Your task to perform on an android device: visit the assistant section in the google photos Image 0: 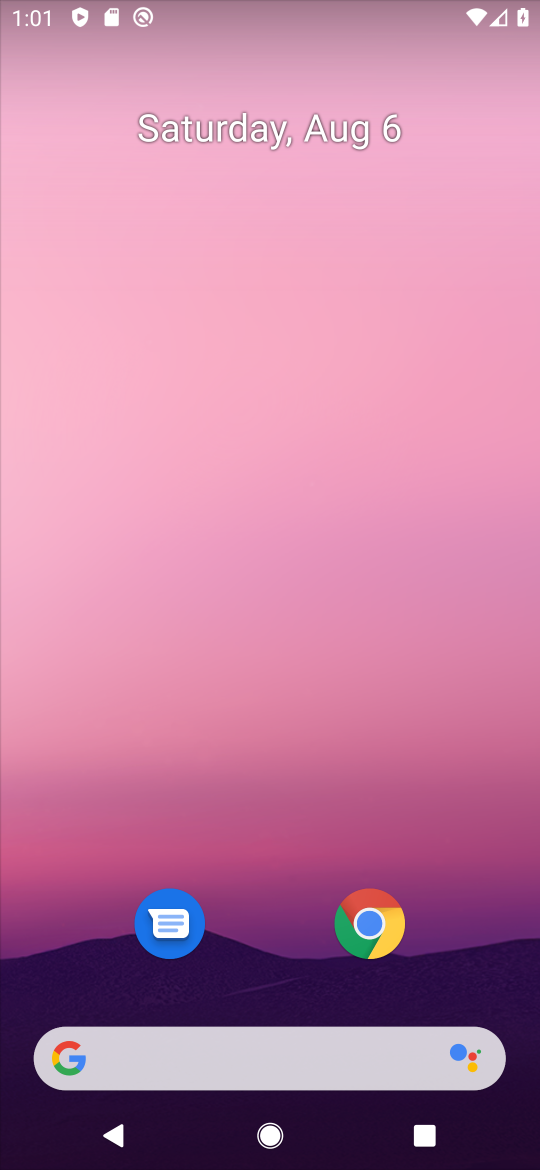
Step 0: drag from (288, 782) to (323, 481)
Your task to perform on an android device: visit the assistant section in the google photos Image 1: 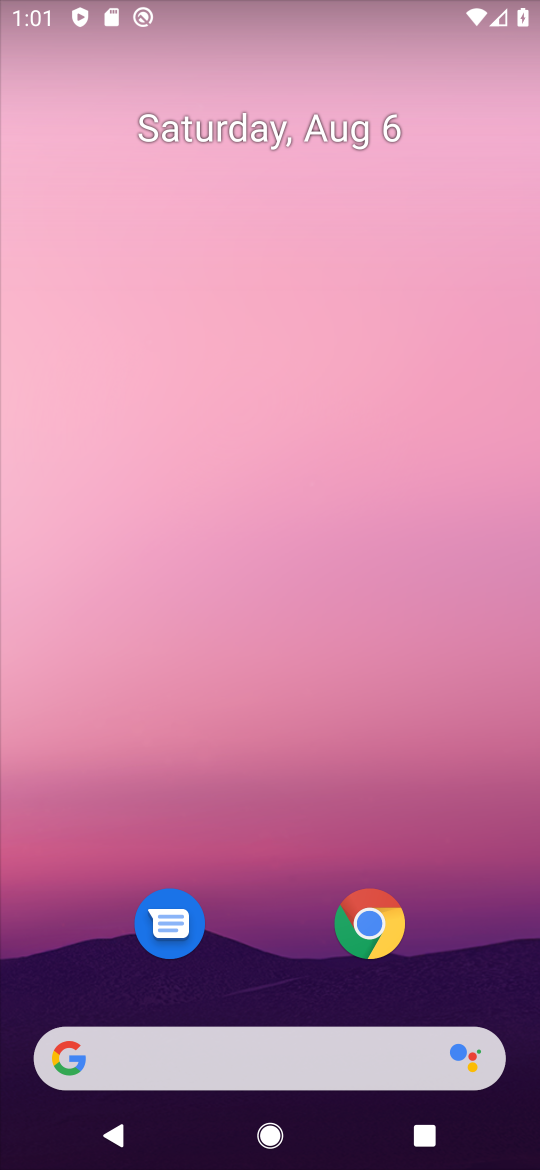
Step 1: drag from (308, 751) to (324, 245)
Your task to perform on an android device: visit the assistant section in the google photos Image 2: 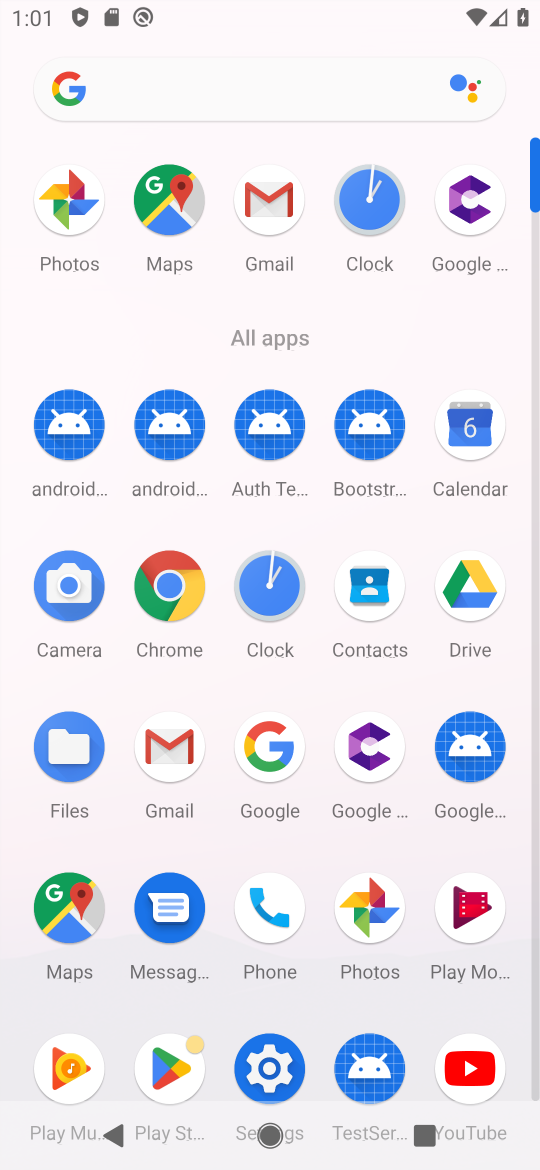
Step 2: click (357, 902)
Your task to perform on an android device: visit the assistant section in the google photos Image 3: 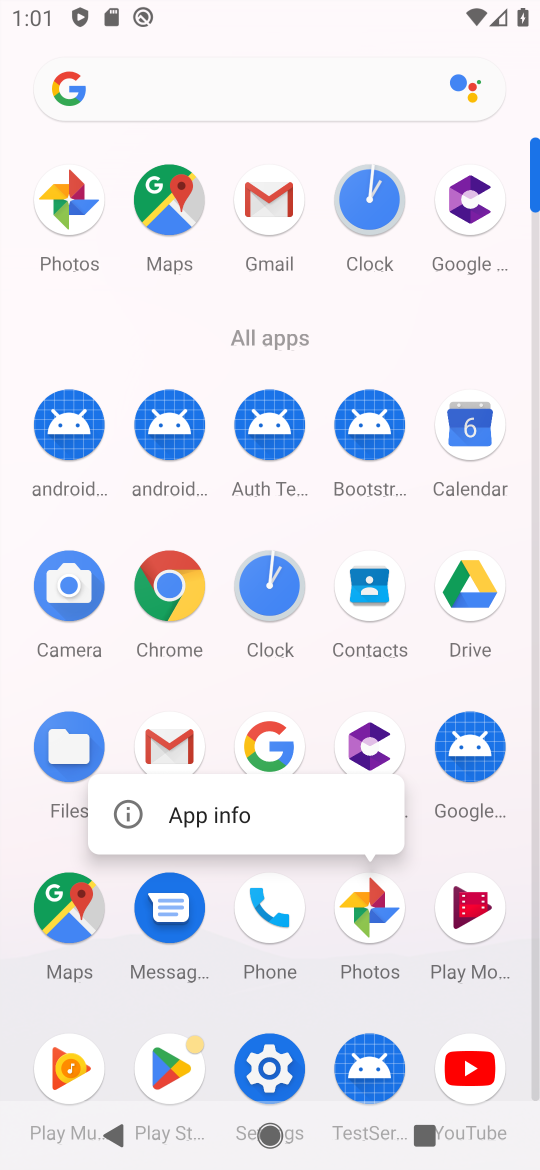
Step 3: click (167, 809)
Your task to perform on an android device: visit the assistant section in the google photos Image 4: 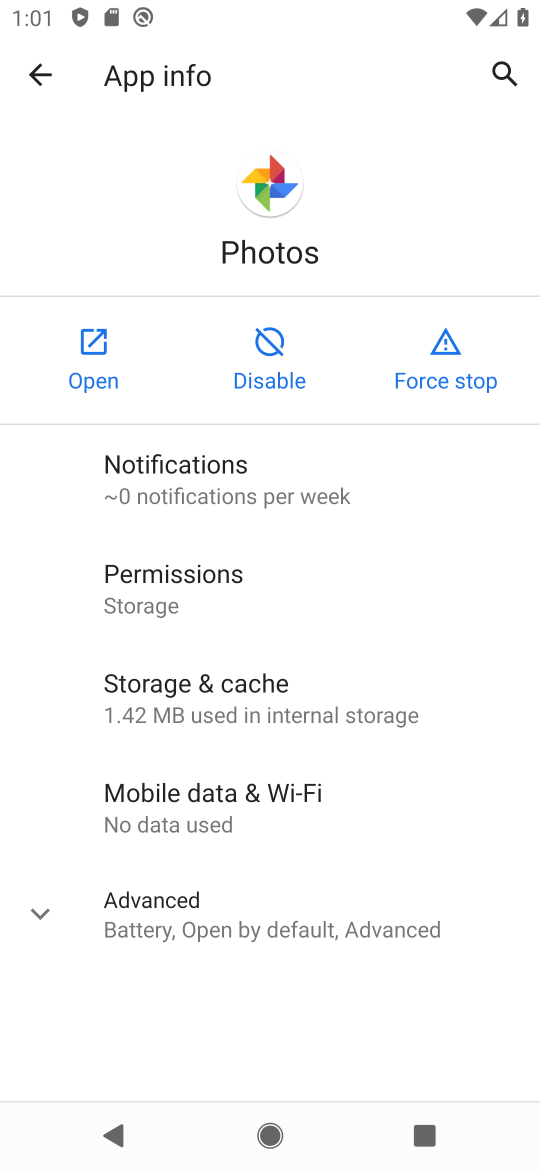
Step 4: click (92, 340)
Your task to perform on an android device: visit the assistant section in the google photos Image 5: 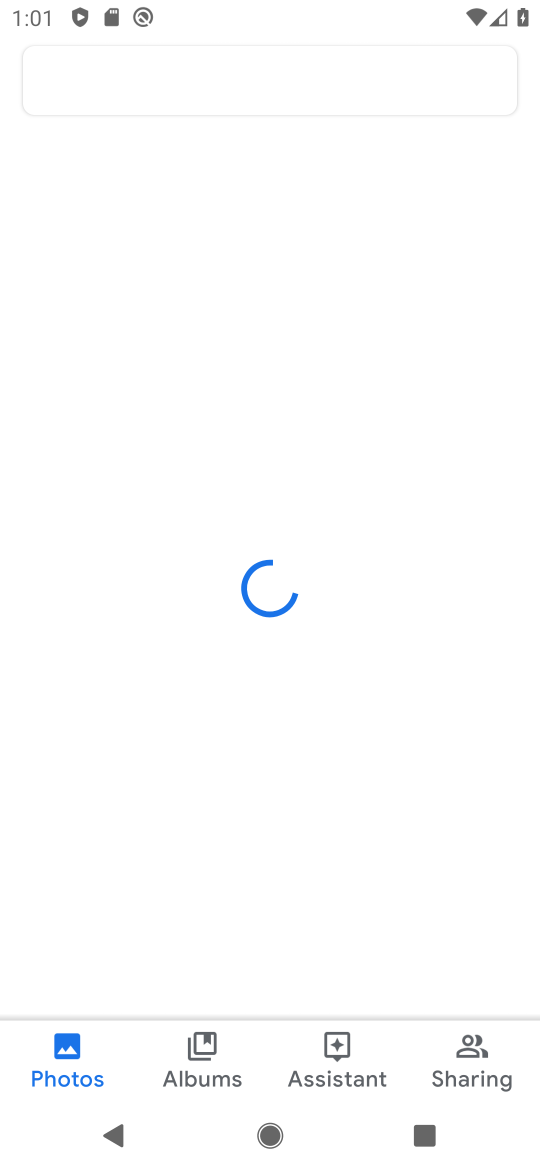
Step 5: drag from (262, 853) to (281, 382)
Your task to perform on an android device: visit the assistant section in the google photos Image 6: 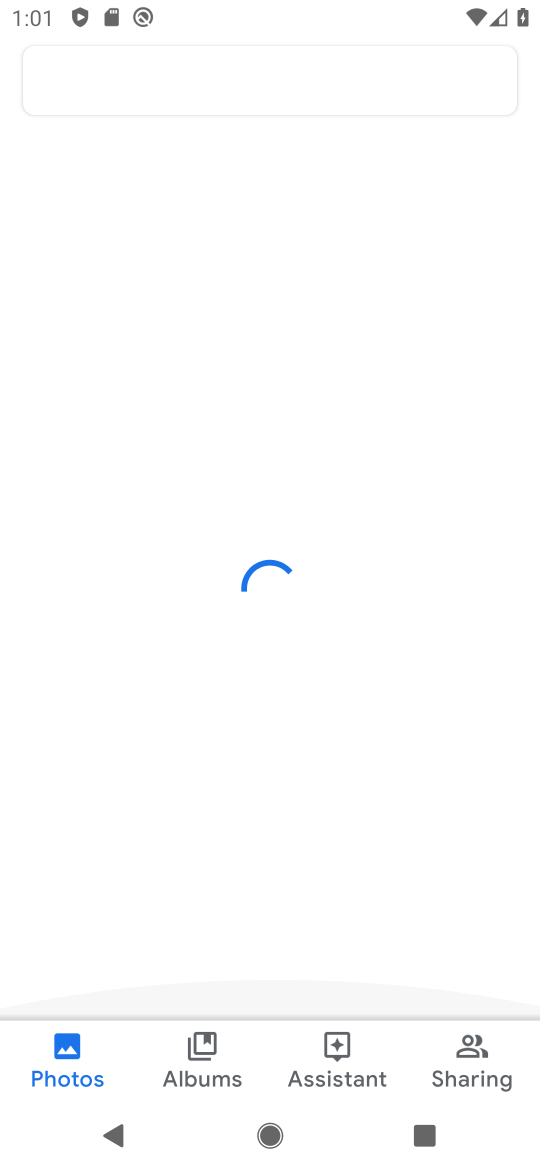
Step 6: click (344, 1044)
Your task to perform on an android device: visit the assistant section in the google photos Image 7: 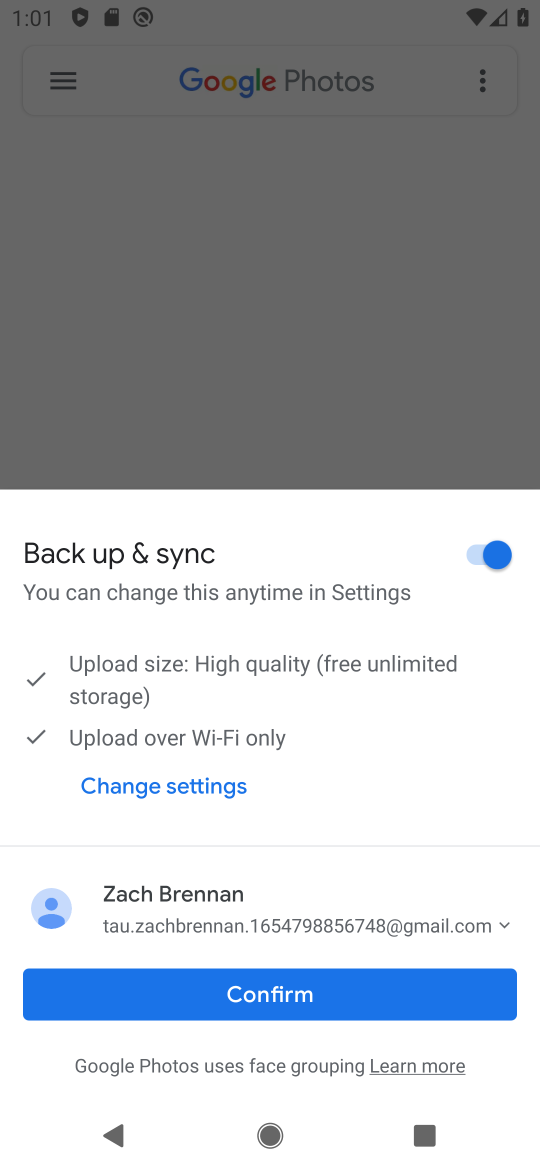
Step 7: click (258, 984)
Your task to perform on an android device: visit the assistant section in the google photos Image 8: 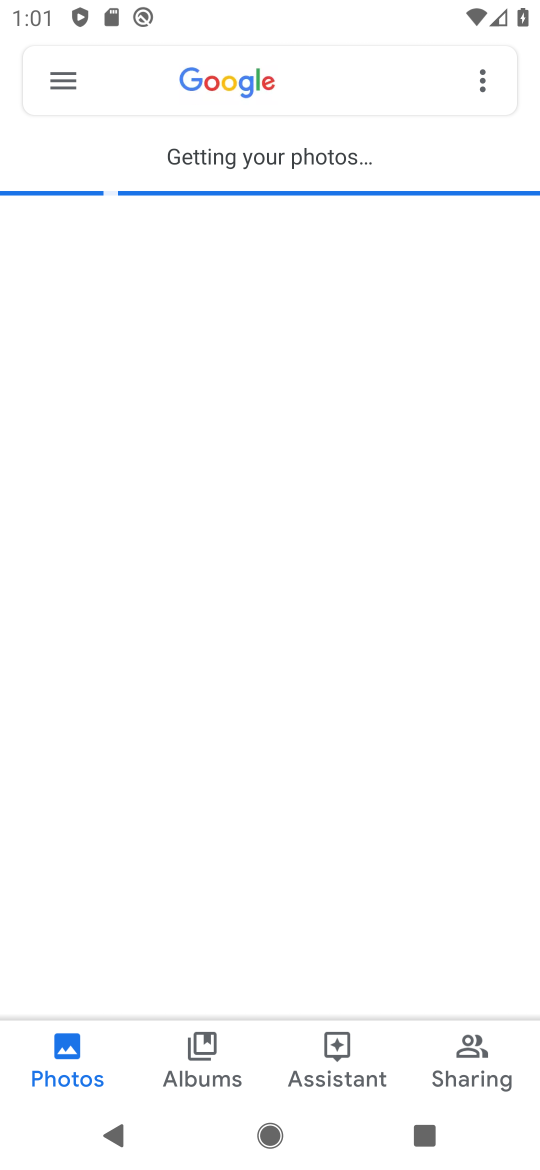
Step 8: task complete